Your task to perform on an android device: check android version Image 0: 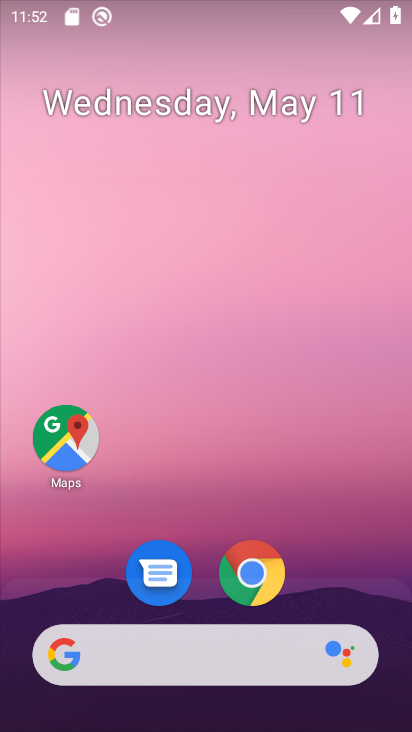
Step 0: drag from (312, 515) to (320, 258)
Your task to perform on an android device: check android version Image 1: 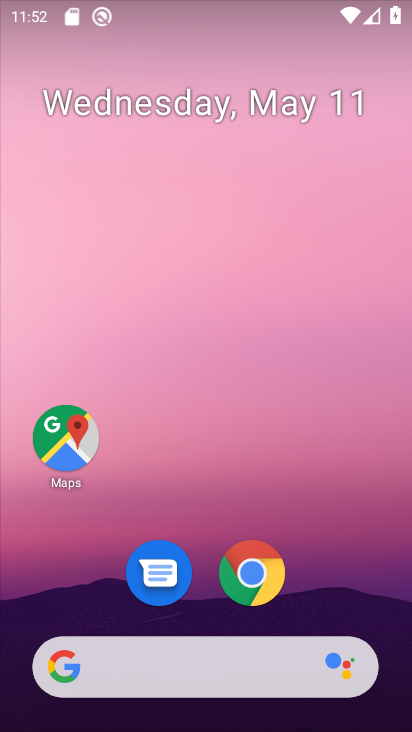
Step 1: drag from (315, 588) to (328, 94)
Your task to perform on an android device: check android version Image 2: 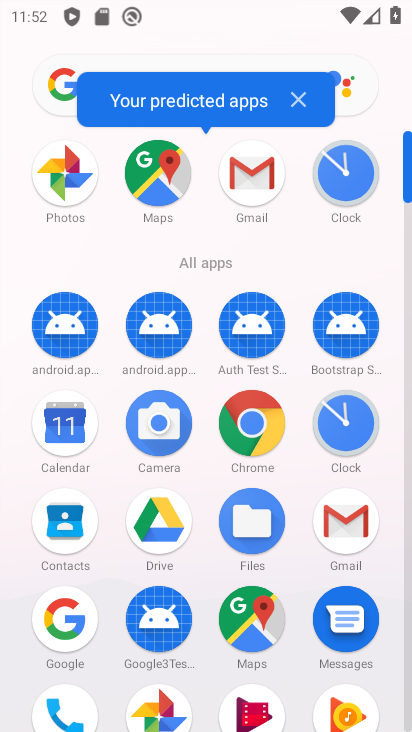
Step 2: drag from (196, 595) to (196, 173)
Your task to perform on an android device: check android version Image 3: 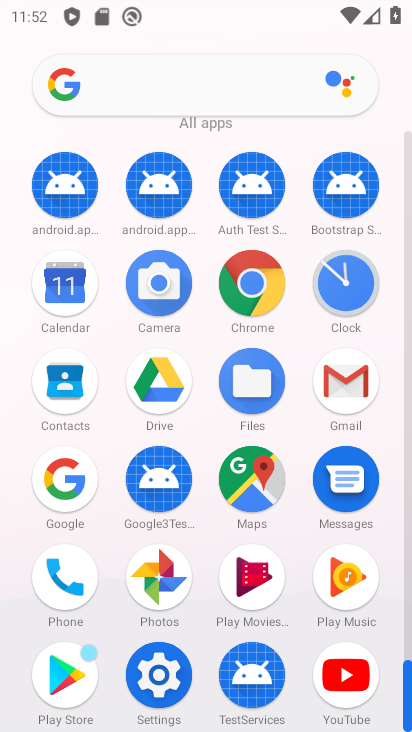
Step 3: click (172, 643)
Your task to perform on an android device: check android version Image 4: 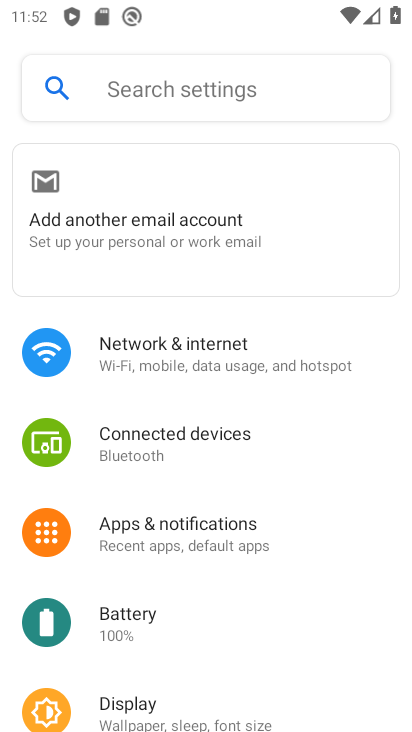
Step 4: drag from (243, 660) to (245, 208)
Your task to perform on an android device: check android version Image 5: 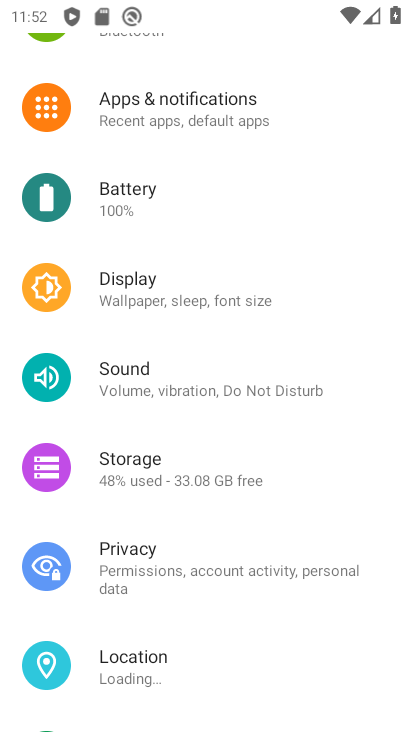
Step 5: drag from (200, 643) to (254, 119)
Your task to perform on an android device: check android version Image 6: 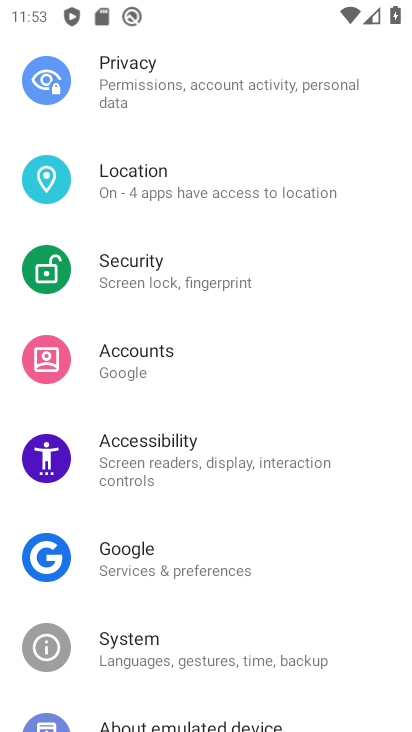
Step 6: drag from (228, 675) to (260, 290)
Your task to perform on an android device: check android version Image 7: 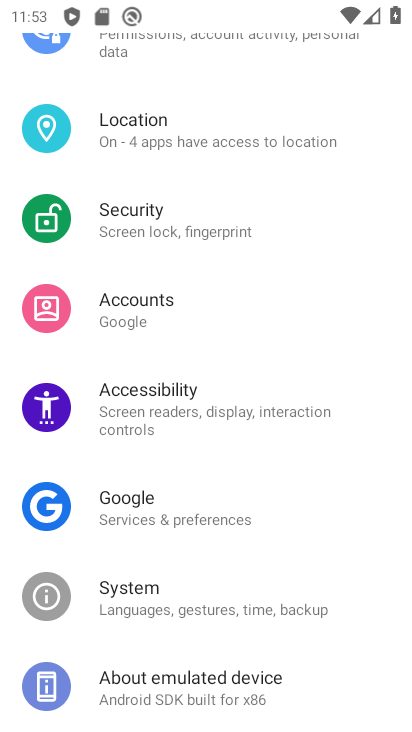
Step 7: click (203, 678)
Your task to perform on an android device: check android version Image 8: 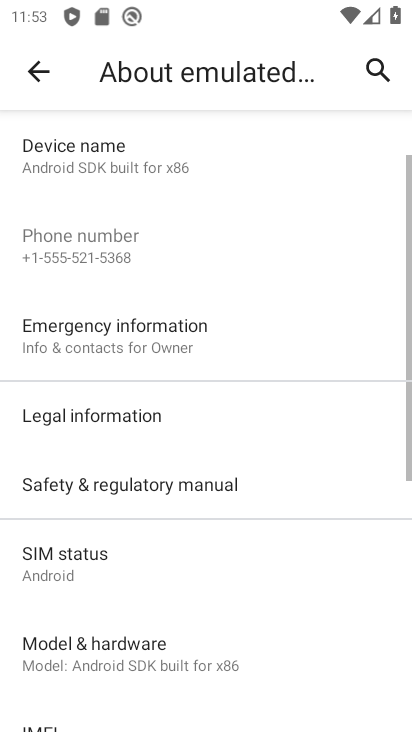
Step 8: task complete